Your task to perform on an android device: Go to eBay Image 0: 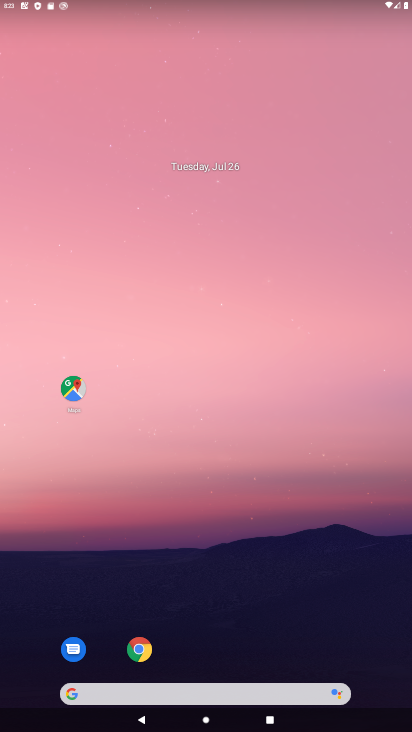
Step 0: click (135, 643)
Your task to perform on an android device: Go to eBay Image 1: 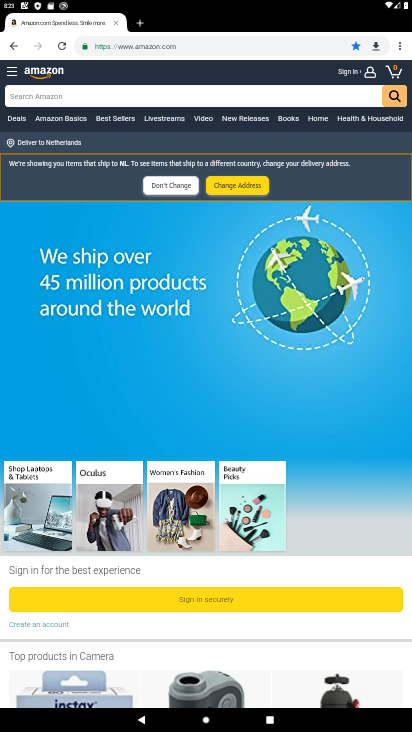
Step 1: click (139, 27)
Your task to perform on an android device: Go to eBay Image 2: 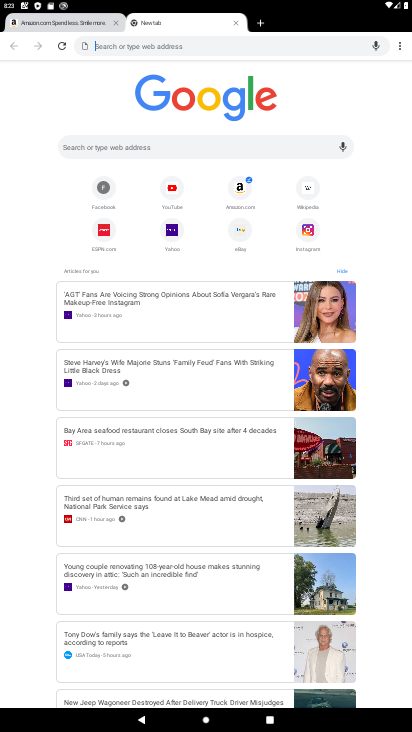
Step 2: click (243, 227)
Your task to perform on an android device: Go to eBay Image 3: 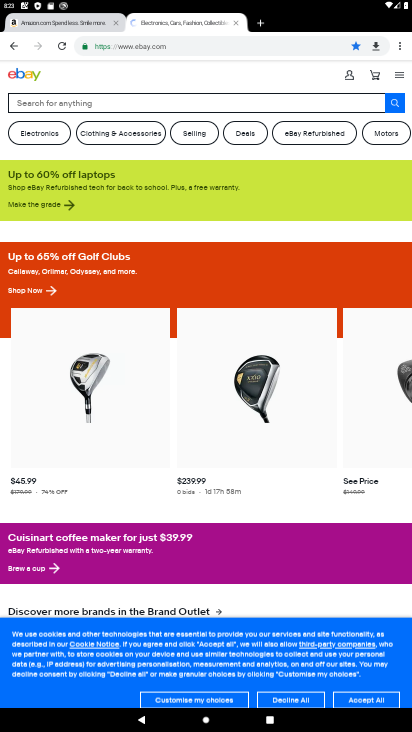
Step 3: task complete